Your task to perform on an android device: check android version Image 0: 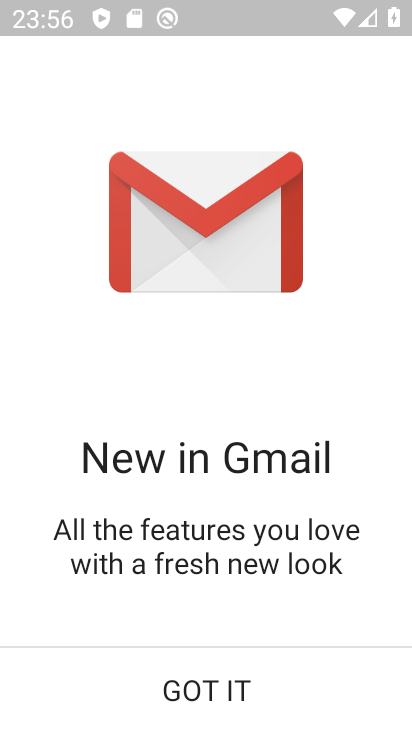
Step 0: press home button
Your task to perform on an android device: check android version Image 1: 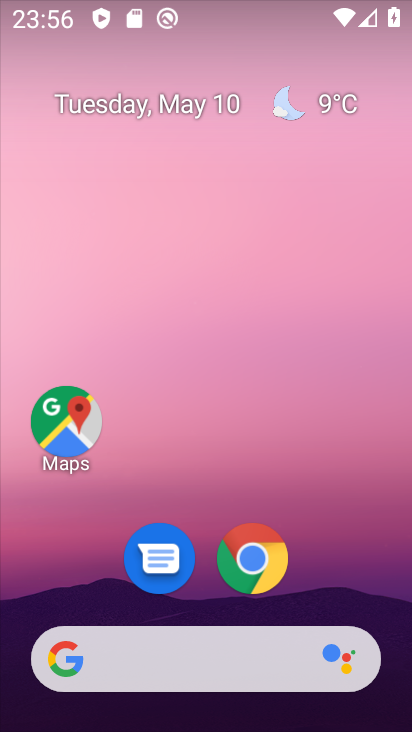
Step 1: drag from (375, 584) to (363, 163)
Your task to perform on an android device: check android version Image 2: 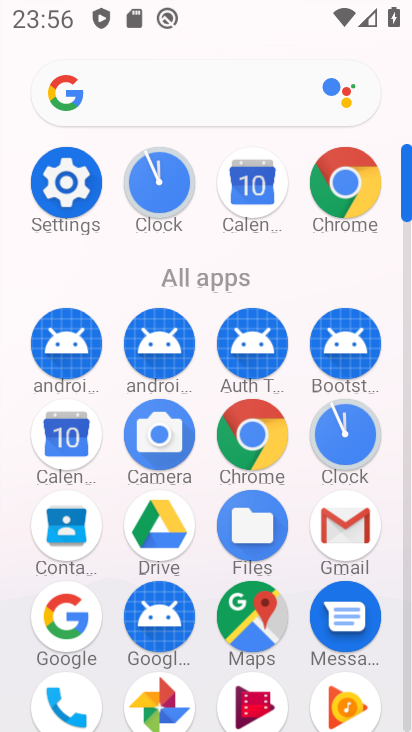
Step 2: click (71, 203)
Your task to perform on an android device: check android version Image 3: 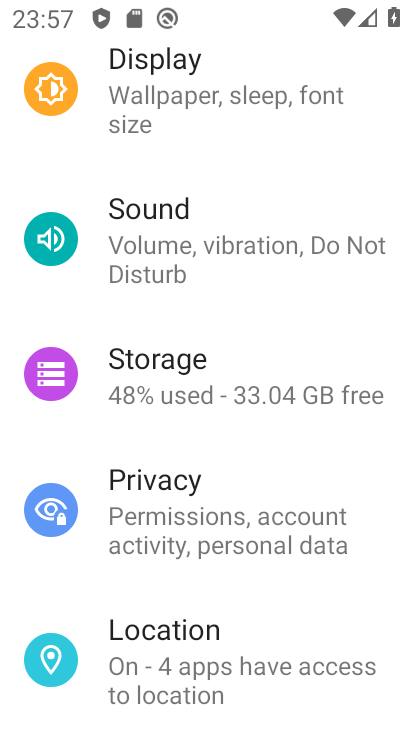
Step 3: drag from (287, 209) to (280, 633)
Your task to perform on an android device: check android version Image 4: 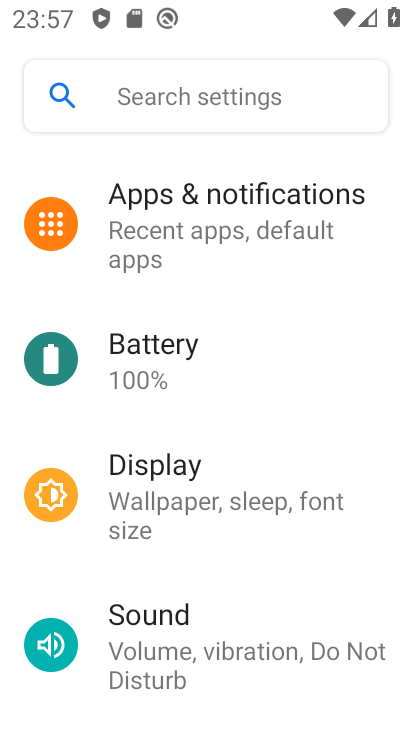
Step 4: drag from (291, 625) to (315, 322)
Your task to perform on an android device: check android version Image 5: 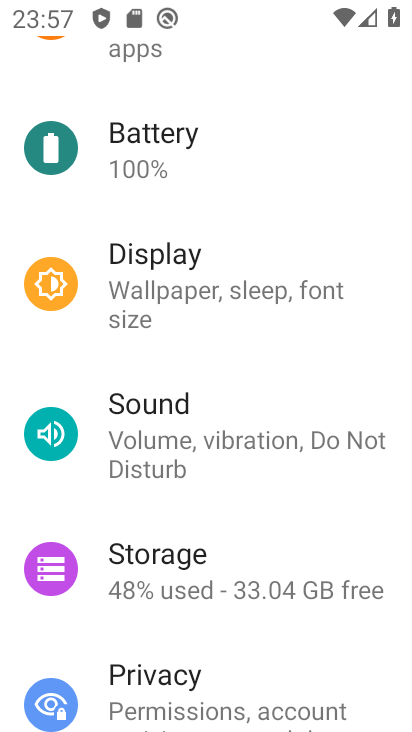
Step 5: drag from (278, 681) to (295, 289)
Your task to perform on an android device: check android version Image 6: 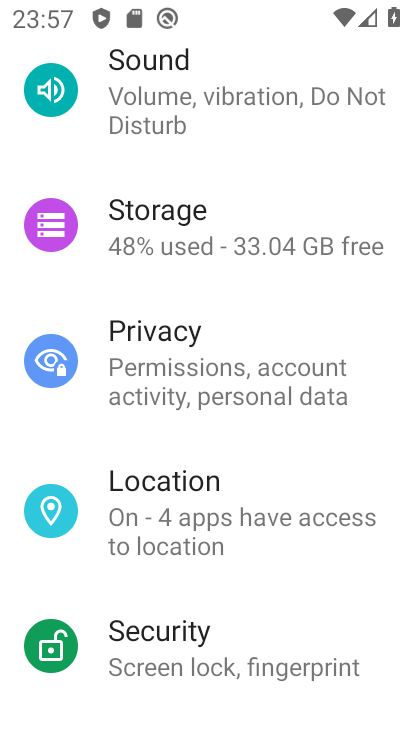
Step 6: drag from (300, 602) to (328, 210)
Your task to perform on an android device: check android version Image 7: 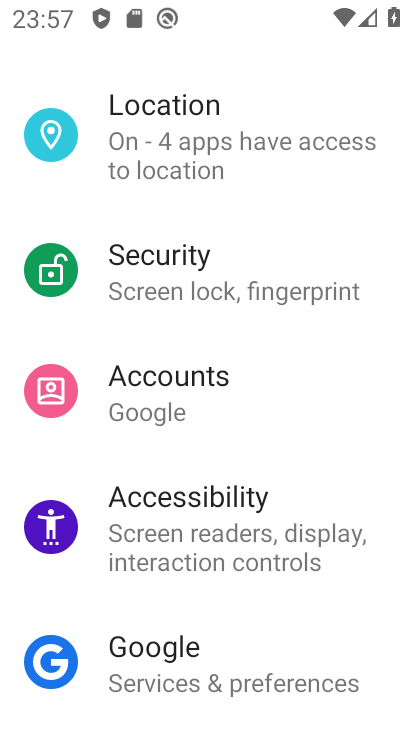
Step 7: drag from (318, 641) to (306, 151)
Your task to perform on an android device: check android version Image 8: 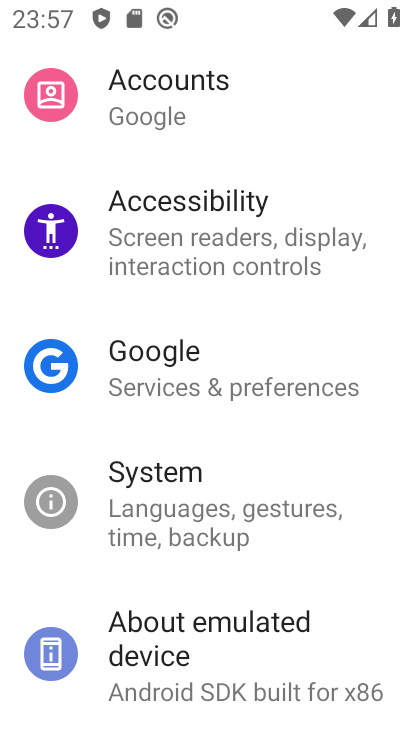
Step 8: drag from (297, 613) to (311, 231)
Your task to perform on an android device: check android version Image 9: 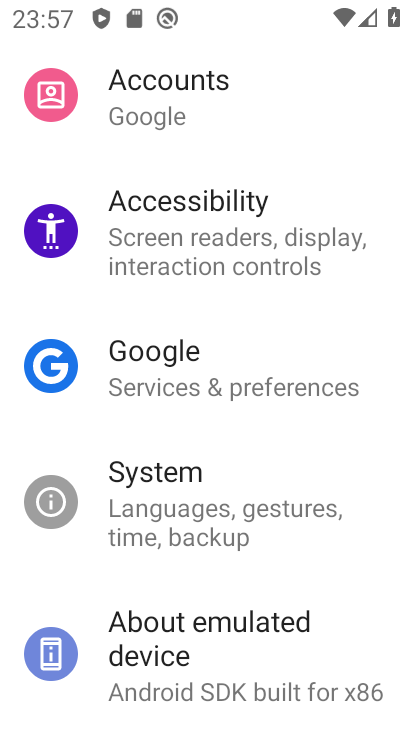
Step 9: click (297, 622)
Your task to perform on an android device: check android version Image 10: 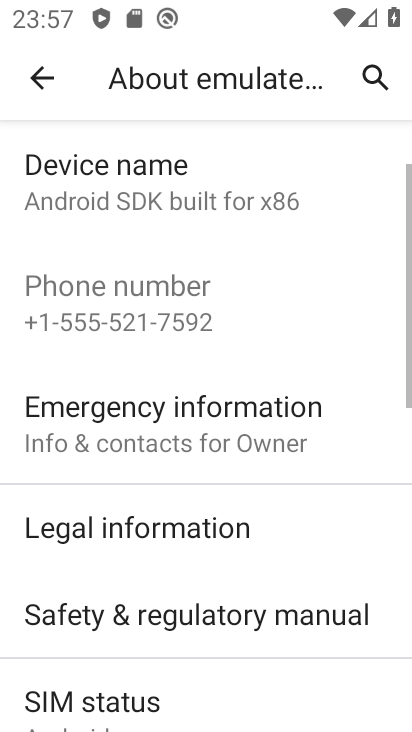
Step 10: drag from (297, 639) to (314, 355)
Your task to perform on an android device: check android version Image 11: 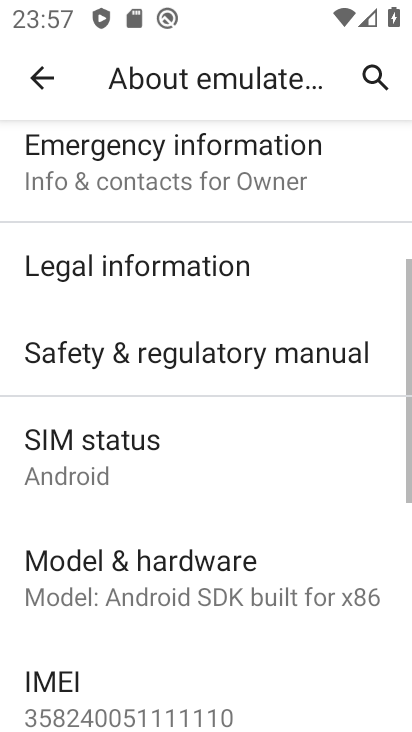
Step 11: drag from (323, 661) to (340, 283)
Your task to perform on an android device: check android version Image 12: 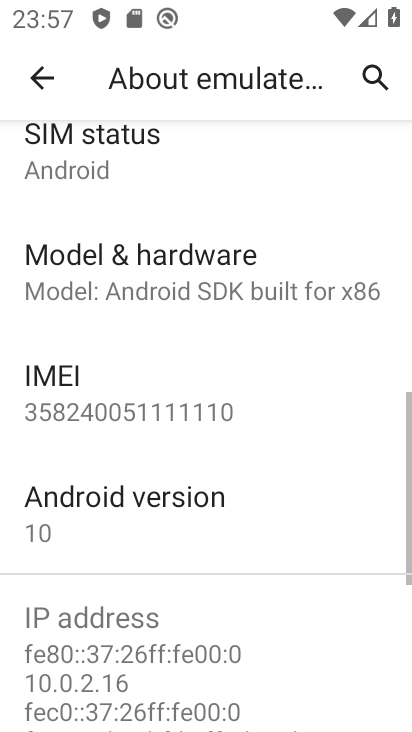
Step 12: click (117, 526)
Your task to perform on an android device: check android version Image 13: 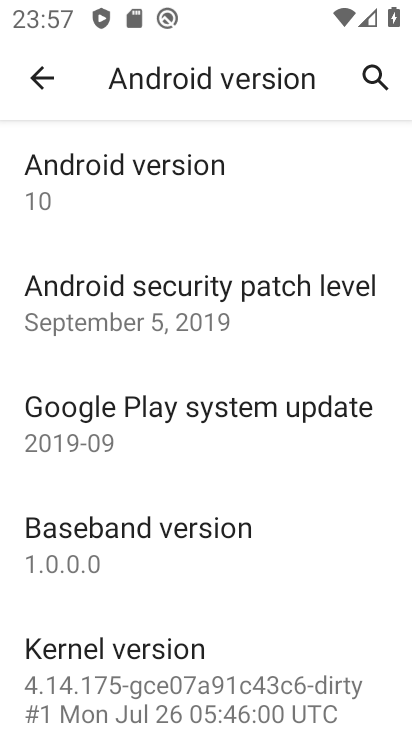
Step 13: task complete